Your task to perform on an android device: clear all cookies in the chrome app Image 0: 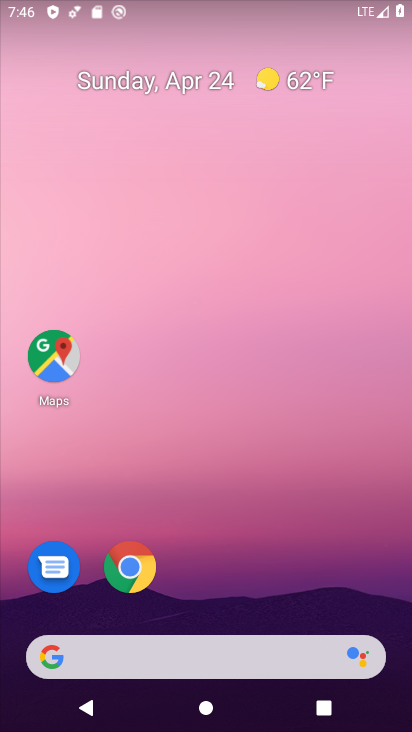
Step 0: click (130, 566)
Your task to perform on an android device: clear all cookies in the chrome app Image 1: 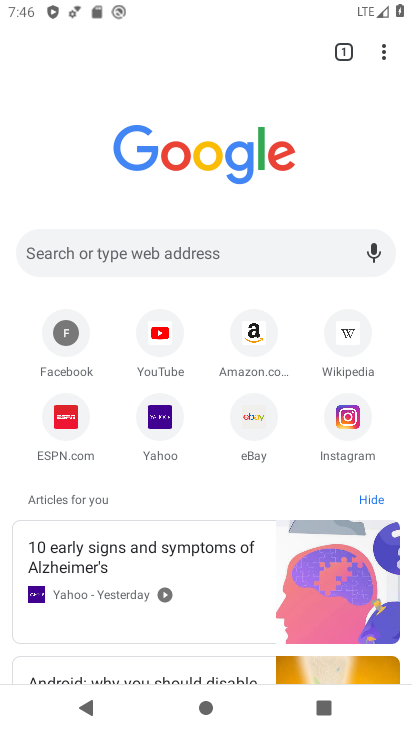
Step 1: click (389, 53)
Your task to perform on an android device: clear all cookies in the chrome app Image 2: 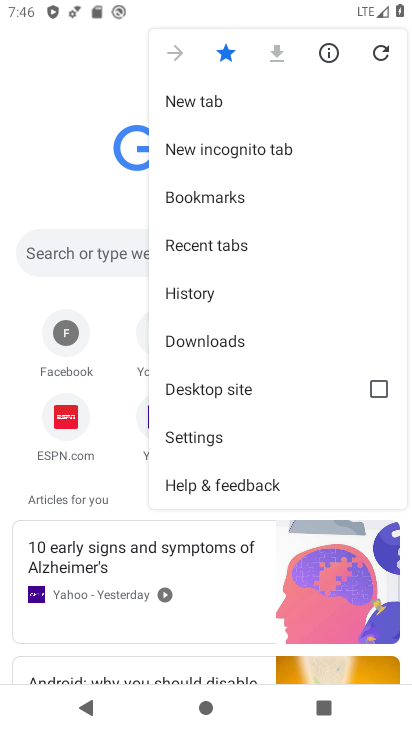
Step 2: click (200, 439)
Your task to perform on an android device: clear all cookies in the chrome app Image 3: 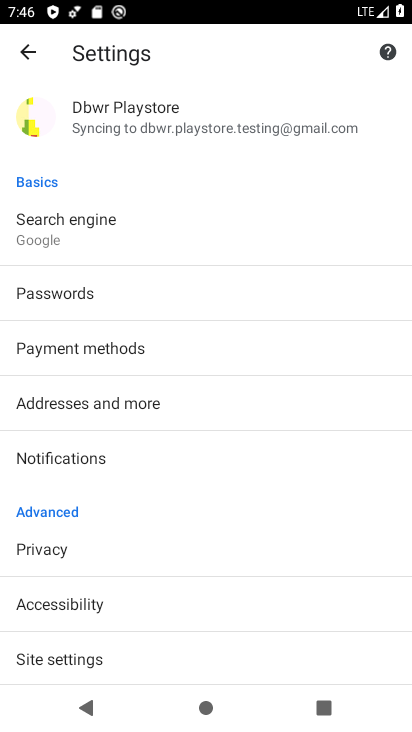
Step 3: click (55, 549)
Your task to perform on an android device: clear all cookies in the chrome app Image 4: 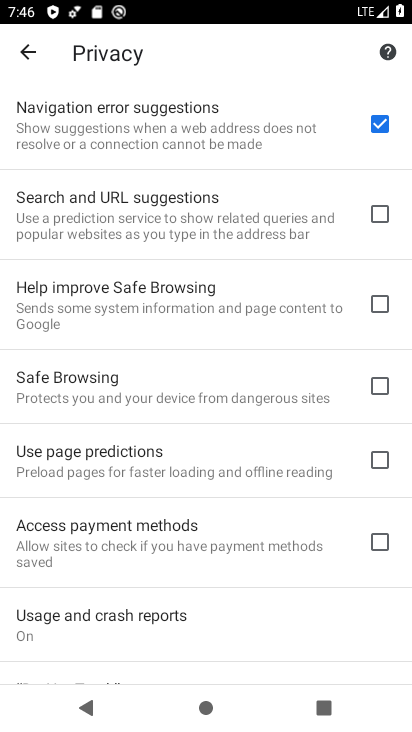
Step 4: drag from (128, 587) to (168, 495)
Your task to perform on an android device: clear all cookies in the chrome app Image 5: 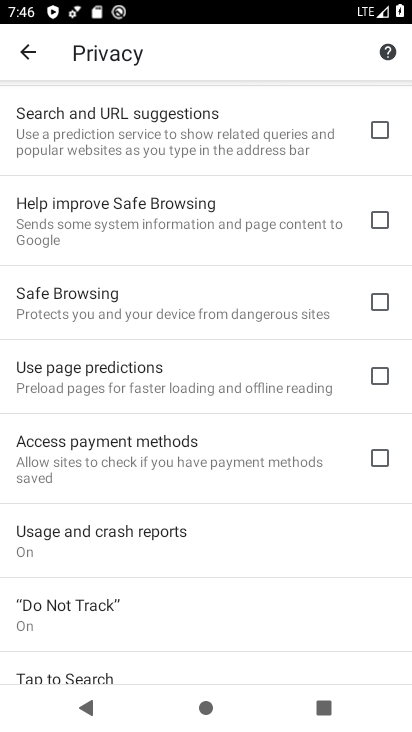
Step 5: drag from (148, 558) to (174, 487)
Your task to perform on an android device: clear all cookies in the chrome app Image 6: 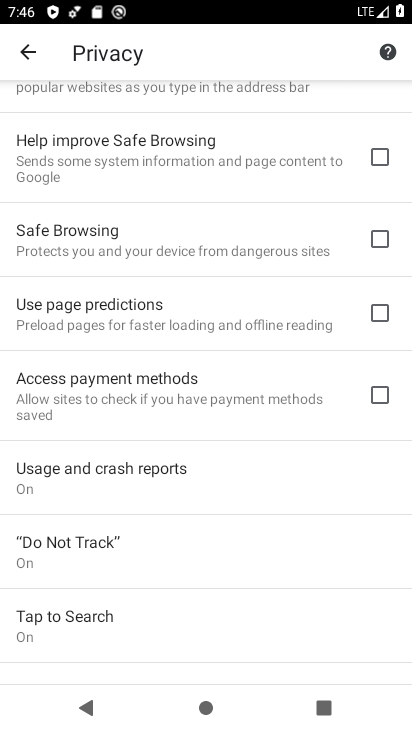
Step 6: drag from (127, 609) to (163, 528)
Your task to perform on an android device: clear all cookies in the chrome app Image 7: 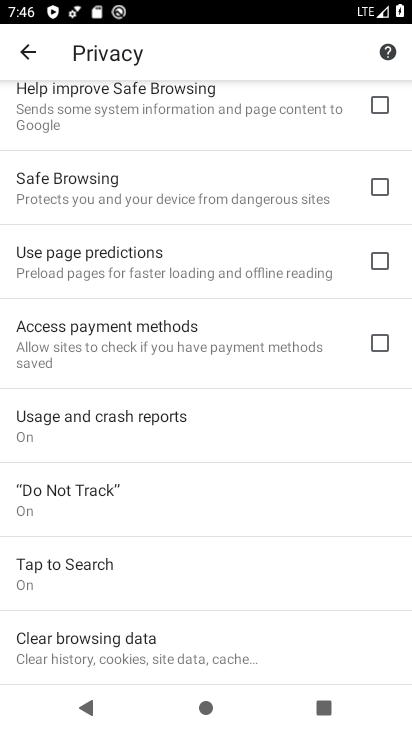
Step 7: click (113, 639)
Your task to perform on an android device: clear all cookies in the chrome app Image 8: 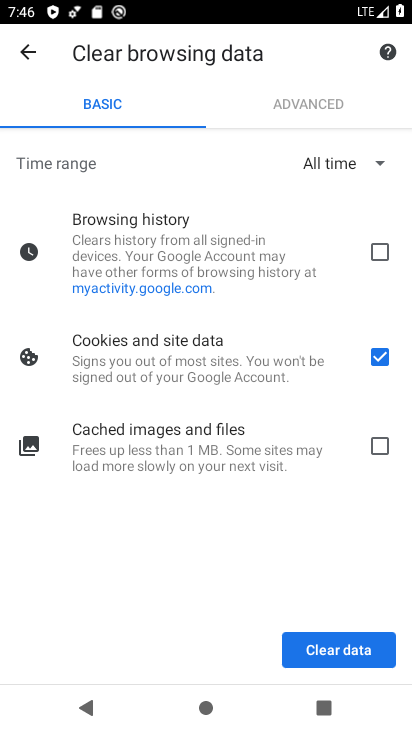
Step 8: click (354, 644)
Your task to perform on an android device: clear all cookies in the chrome app Image 9: 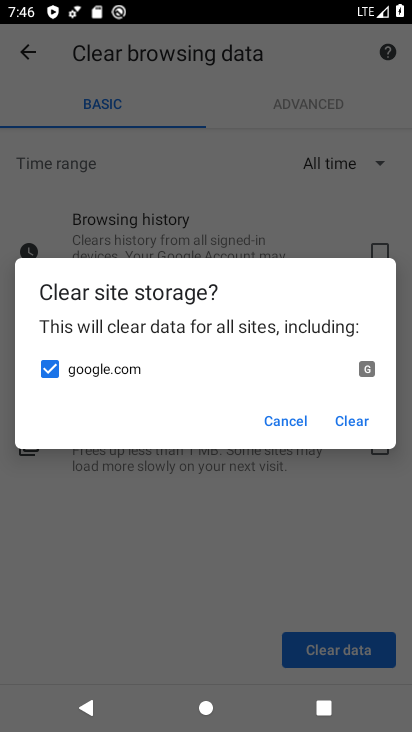
Step 9: click (355, 417)
Your task to perform on an android device: clear all cookies in the chrome app Image 10: 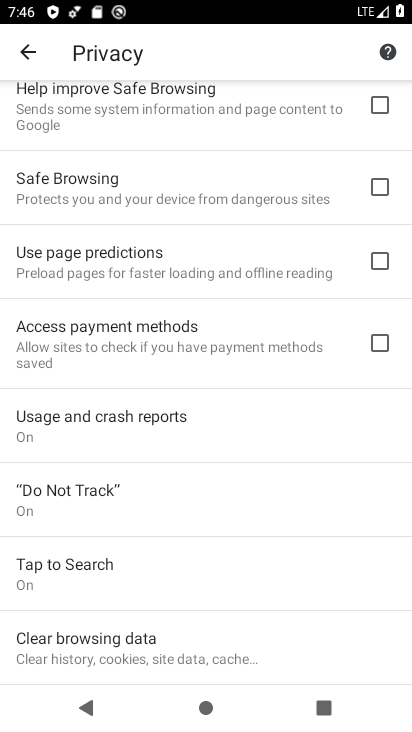
Step 10: task complete